Your task to perform on an android device: change timer sound Image 0: 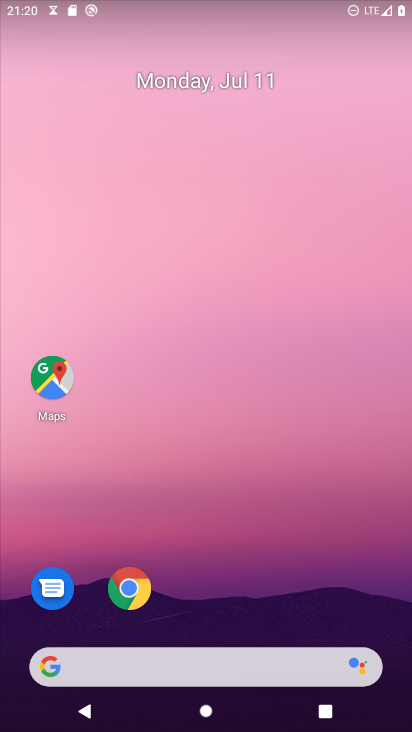
Step 0: press home button
Your task to perform on an android device: change timer sound Image 1: 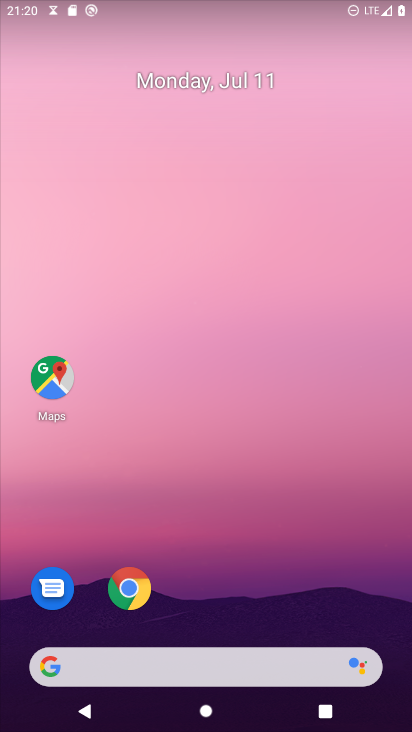
Step 1: drag from (262, 616) to (280, 204)
Your task to perform on an android device: change timer sound Image 2: 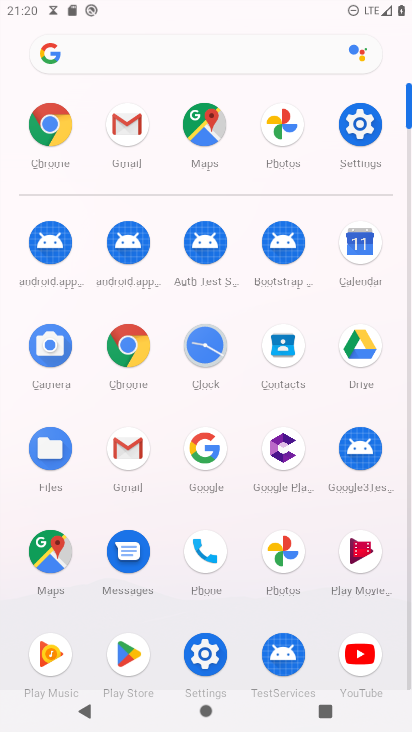
Step 2: click (370, 136)
Your task to perform on an android device: change timer sound Image 3: 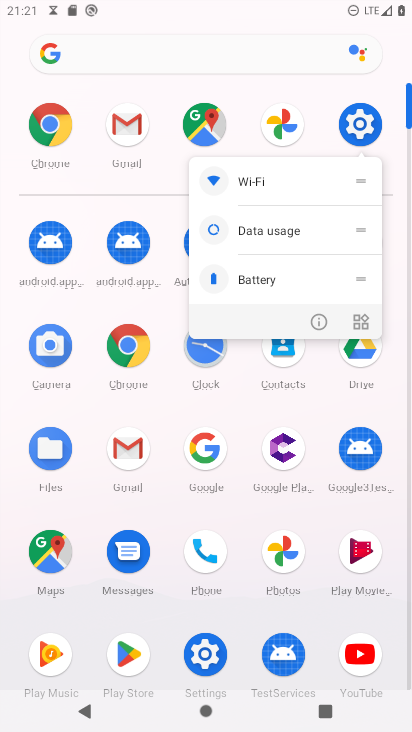
Step 3: click (260, 511)
Your task to perform on an android device: change timer sound Image 4: 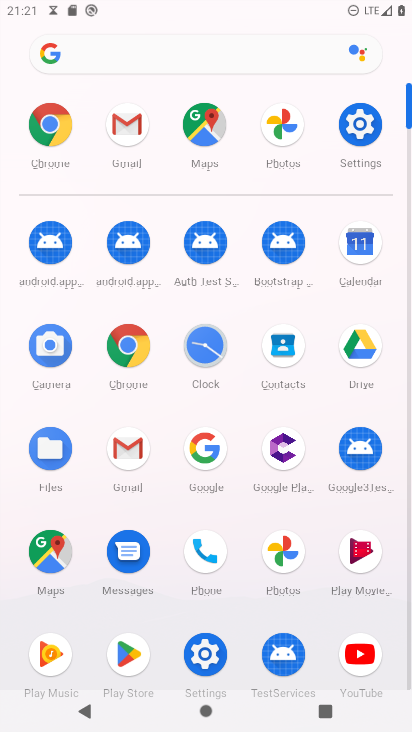
Step 4: click (215, 350)
Your task to perform on an android device: change timer sound Image 5: 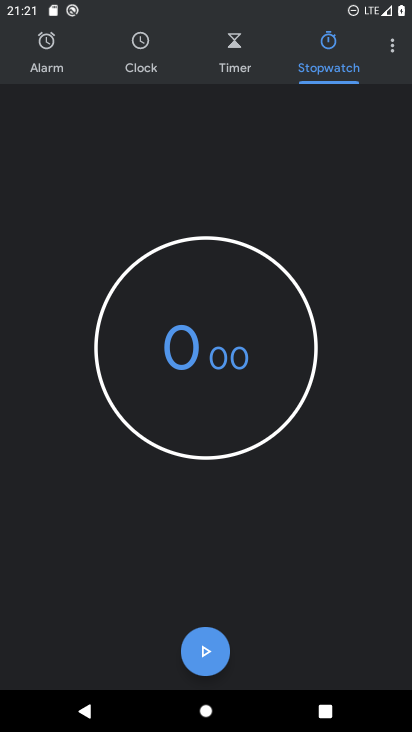
Step 5: click (384, 49)
Your task to perform on an android device: change timer sound Image 6: 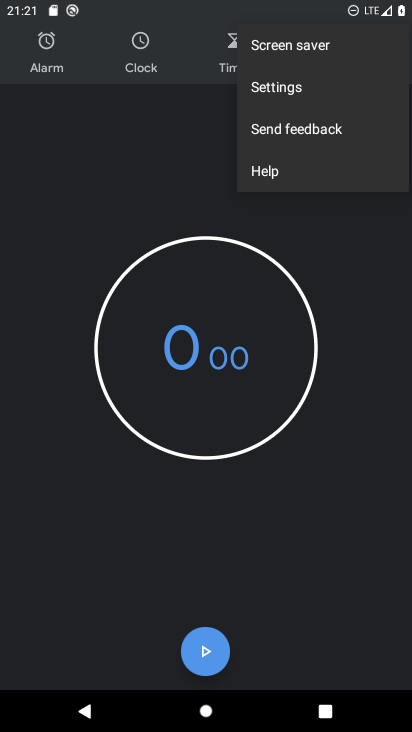
Step 6: click (300, 90)
Your task to perform on an android device: change timer sound Image 7: 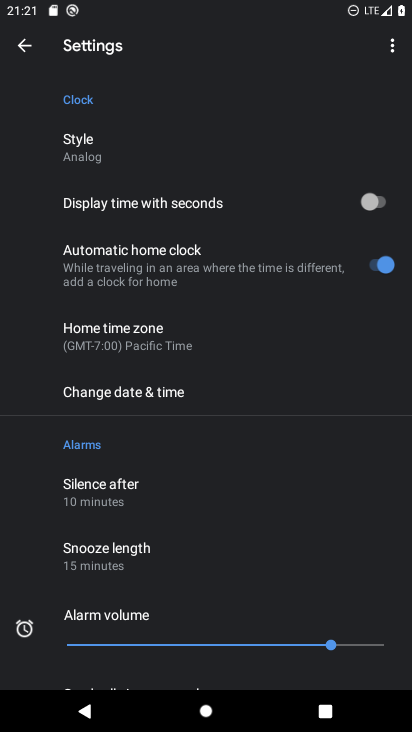
Step 7: drag from (288, 496) to (223, 13)
Your task to perform on an android device: change timer sound Image 8: 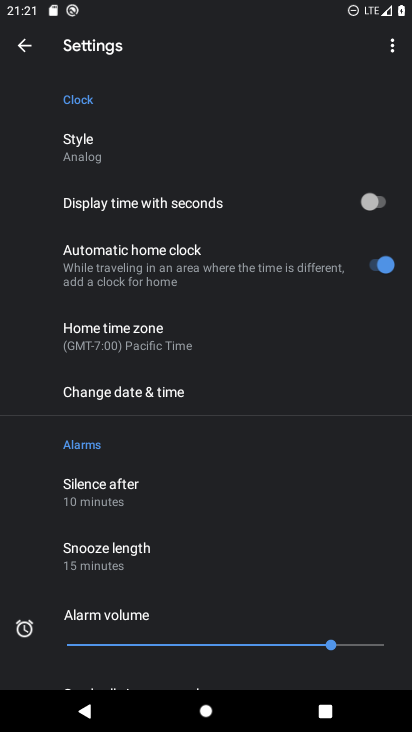
Step 8: drag from (242, 579) to (244, 77)
Your task to perform on an android device: change timer sound Image 9: 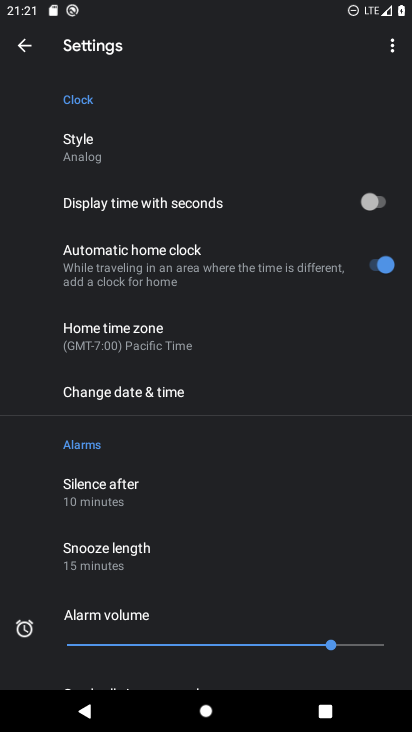
Step 9: drag from (280, 494) to (265, 13)
Your task to perform on an android device: change timer sound Image 10: 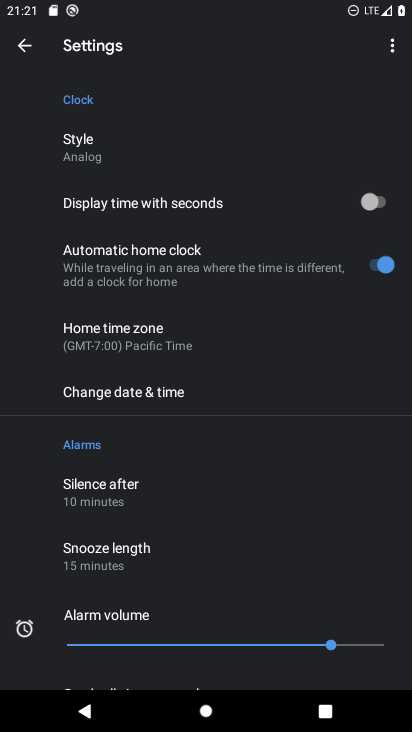
Step 10: drag from (287, 662) to (211, 32)
Your task to perform on an android device: change timer sound Image 11: 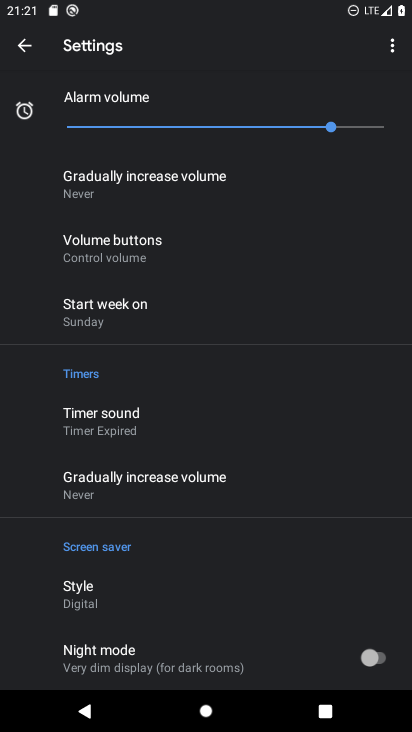
Step 11: drag from (248, 611) to (242, 8)
Your task to perform on an android device: change timer sound Image 12: 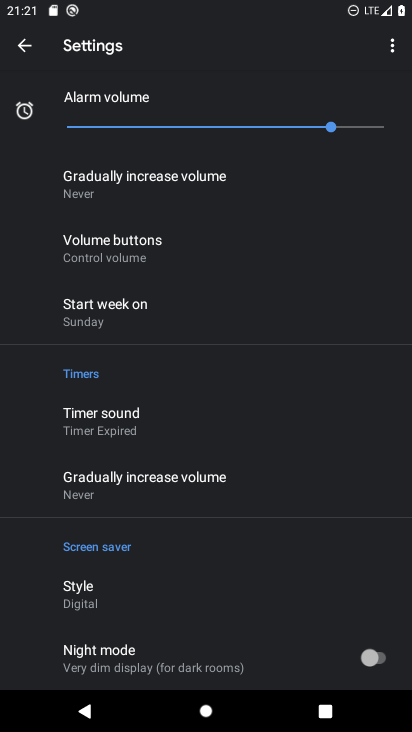
Step 12: click (93, 414)
Your task to perform on an android device: change timer sound Image 13: 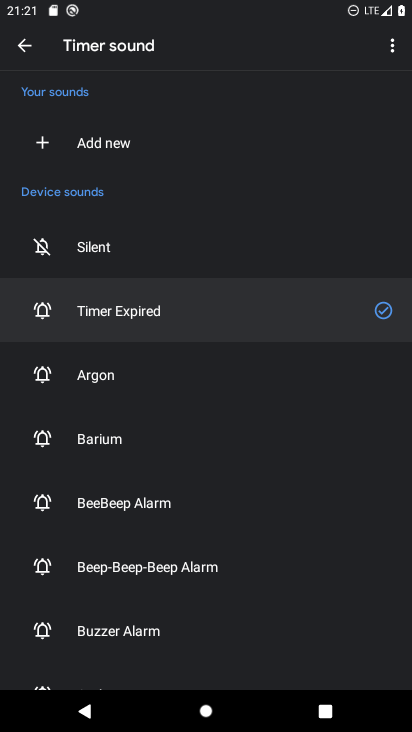
Step 13: click (81, 386)
Your task to perform on an android device: change timer sound Image 14: 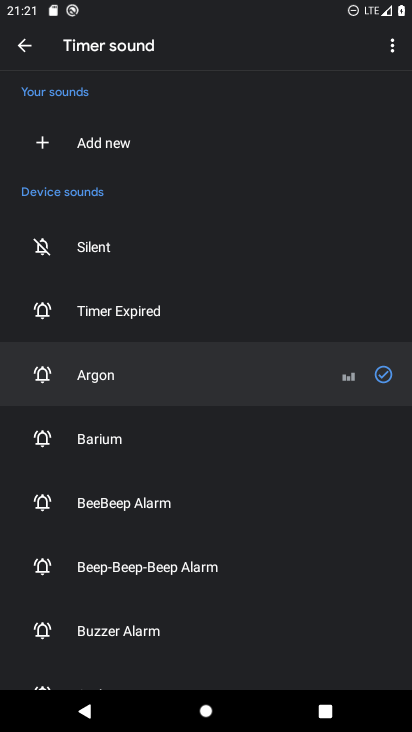
Step 14: task complete